Your task to perform on an android device: Turn on the flashlight Image 0: 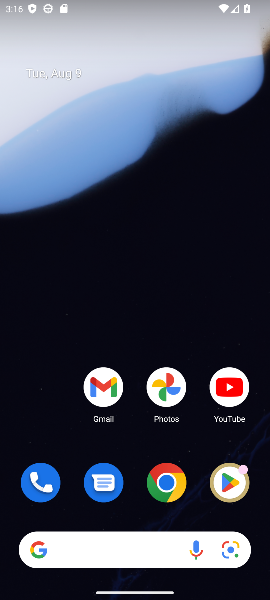
Step 0: drag from (133, 439) to (133, 146)
Your task to perform on an android device: Turn on the flashlight Image 1: 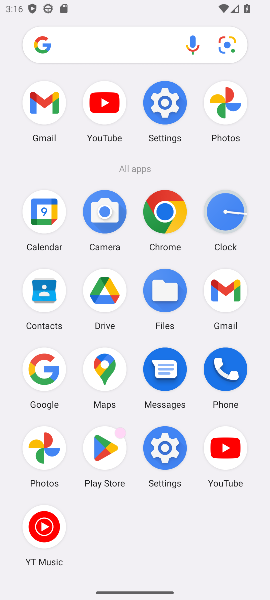
Step 1: click (155, 434)
Your task to perform on an android device: Turn on the flashlight Image 2: 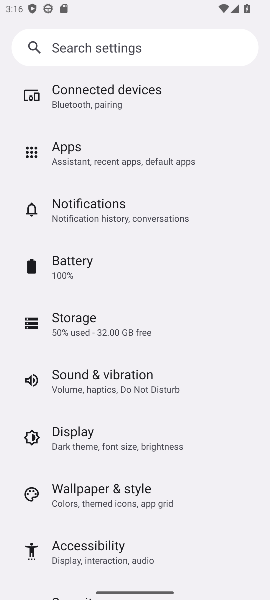
Step 2: task complete